Your task to perform on an android device: Show me popular videos on Youtube Image 0: 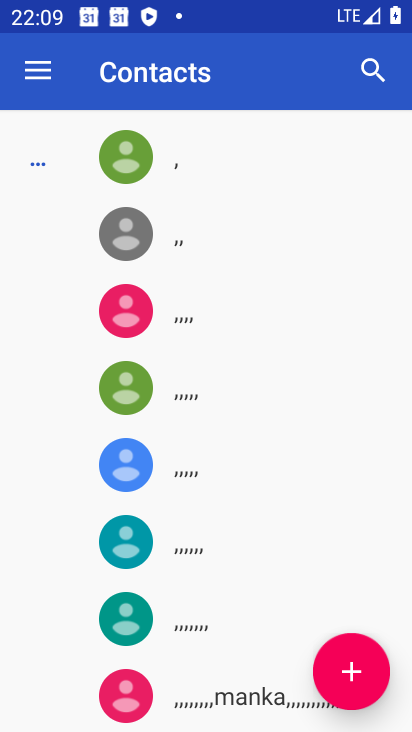
Step 0: type "weather"
Your task to perform on an android device: Show me popular videos on Youtube Image 1: 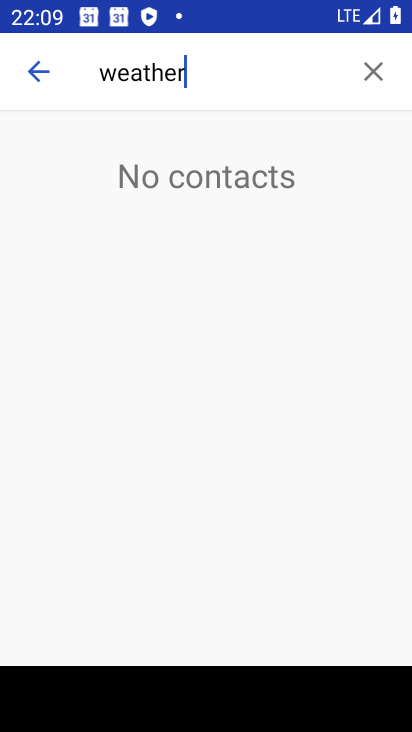
Step 1: press home button
Your task to perform on an android device: Show me popular videos on Youtube Image 2: 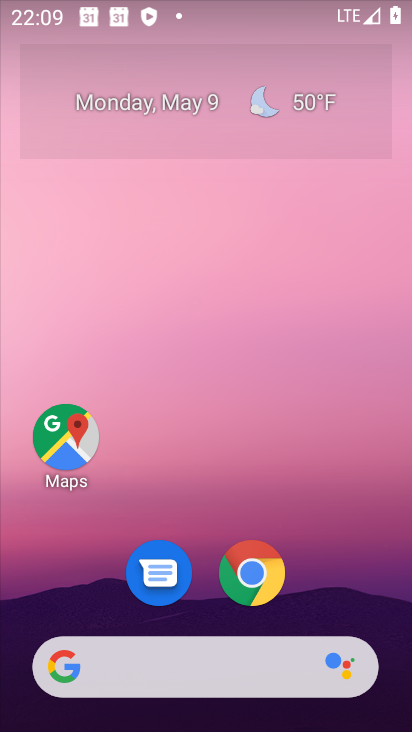
Step 2: drag from (357, 537) to (290, 28)
Your task to perform on an android device: Show me popular videos on Youtube Image 3: 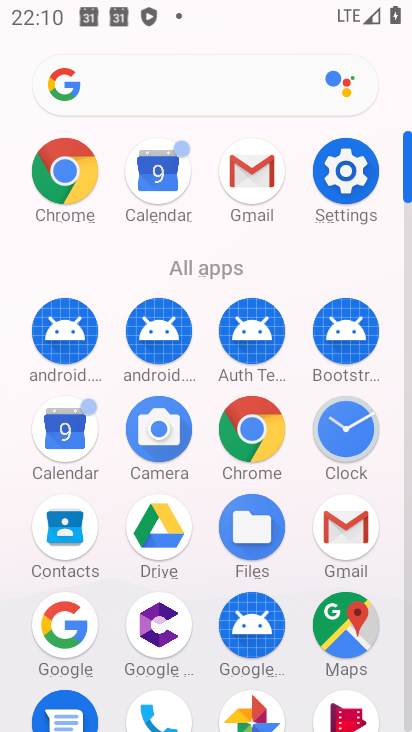
Step 3: drag from (291, 576) to (273, 94)
Your task to perform on an android device: Show me popular videos on Youtube Image 4: 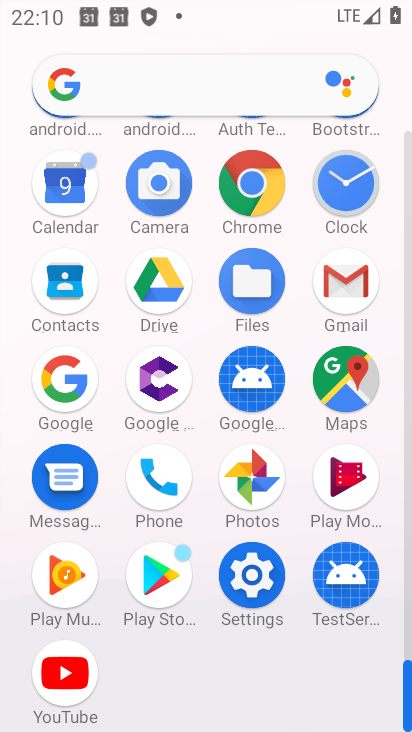
Step 4: click (50, 677)
Your task to perform on an android device: Show me popular videos on Youtube Image 5: 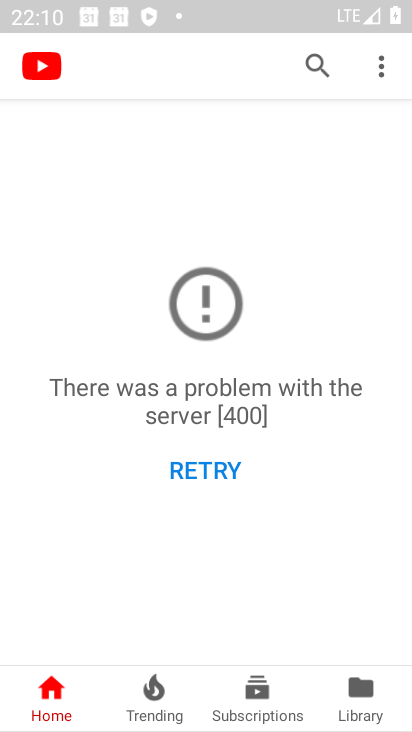
Step 5: click (171, 703)
Your task to perform on an android device: Show me popular videos on Youtube Image 6: 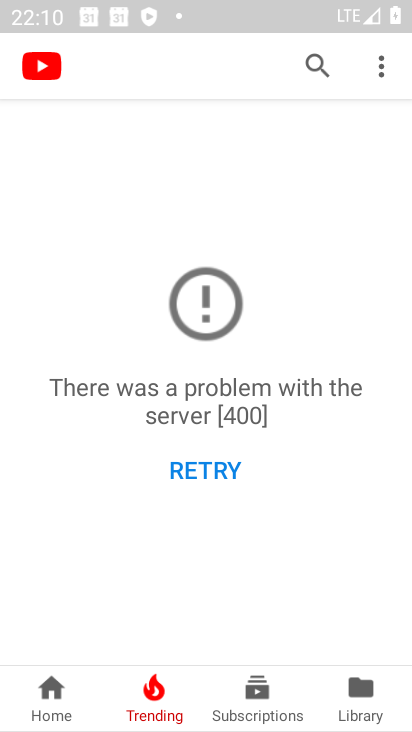
Step 6: task complete